Your task to perform on an android device: Open the map Image 0: 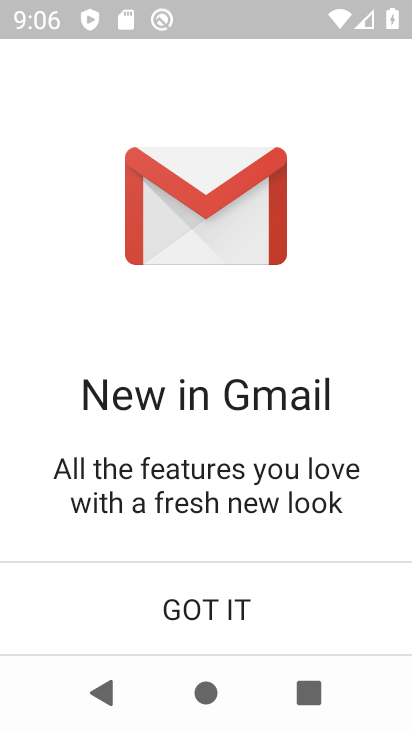
Step 0: press home button
Your task to perform on an android device: Open the map Image 1: 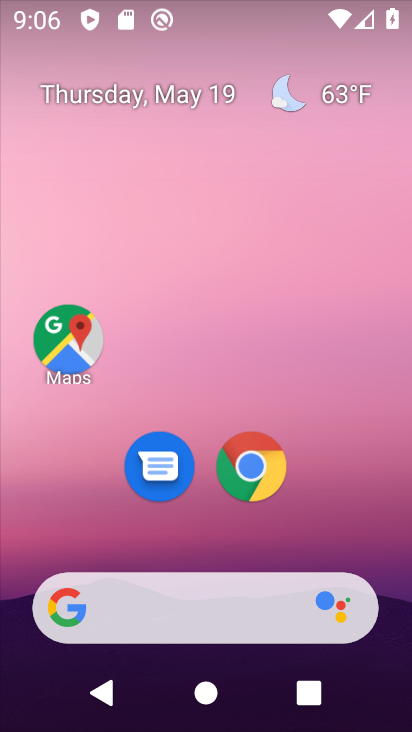
Step 1: drag from (392, 592) to (325, 66)
Your task to perform on an android device: Open the map Image 2: 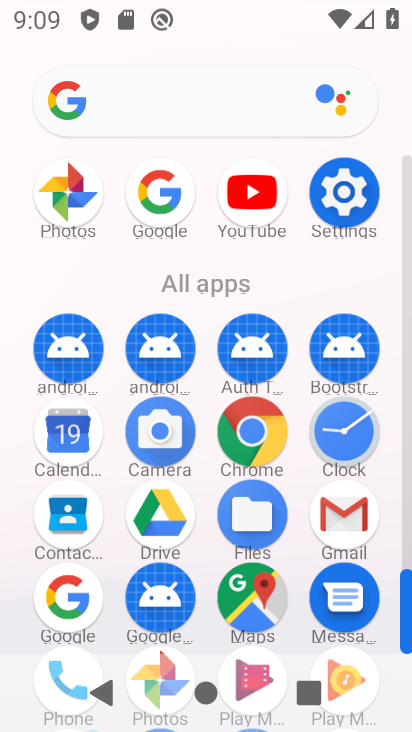
Step 2: click (239, 608)
Your task to perform on an android device: Open the map Image 3: 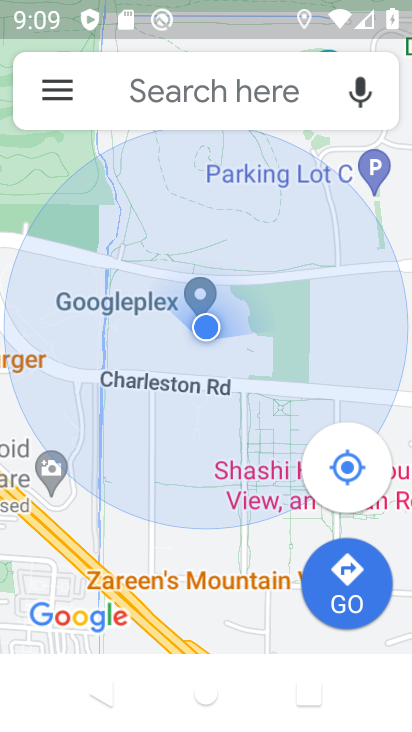
Step 3: task complete